Your task to perform on an android device: When is my next appointment? Image 0: 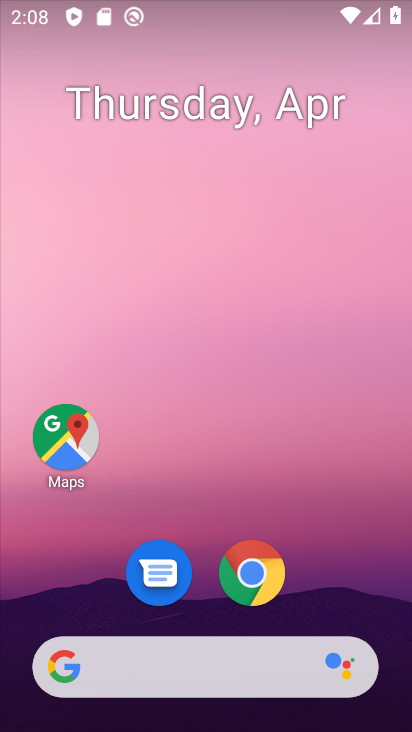
Step 0: drag from (352, 603) to (302, 56)
Your task to perform on an android device: When is my next appointment? Image 1: 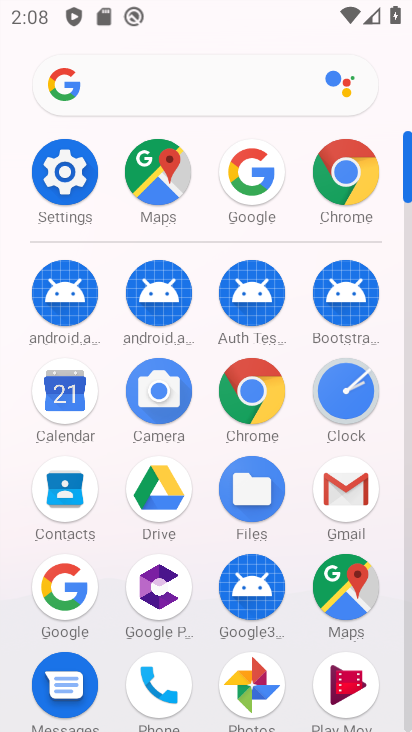
Step 1: click (73, 401)
Your task to perform on an android device: When is my next appointment? Image 2: 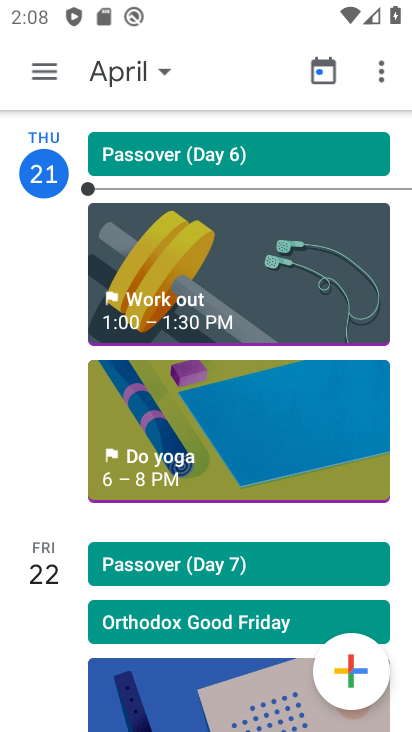
Step 2: click (47, 78)
Your task to perform on an android device: When is my next appointment? Image 3: 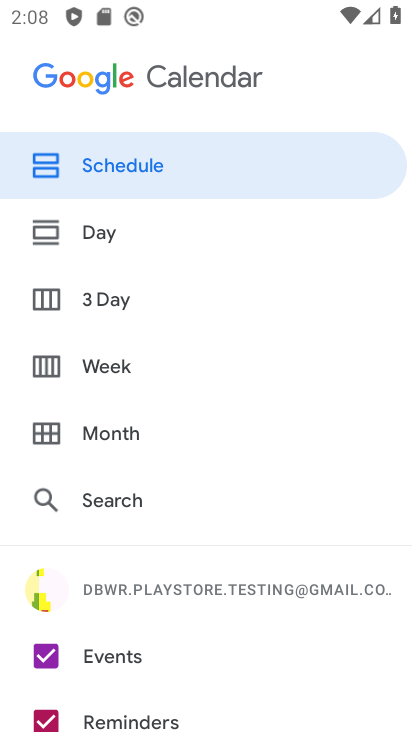
Step 3: click (178, 168)
Your task to perform on an android device: When is my next appointment? Image 4: 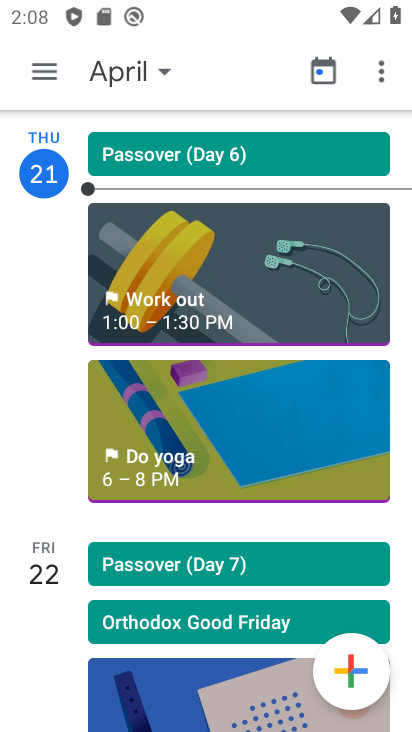
Step 4: task complete